Your task to perform on an android device: Open Amazon Image 0: 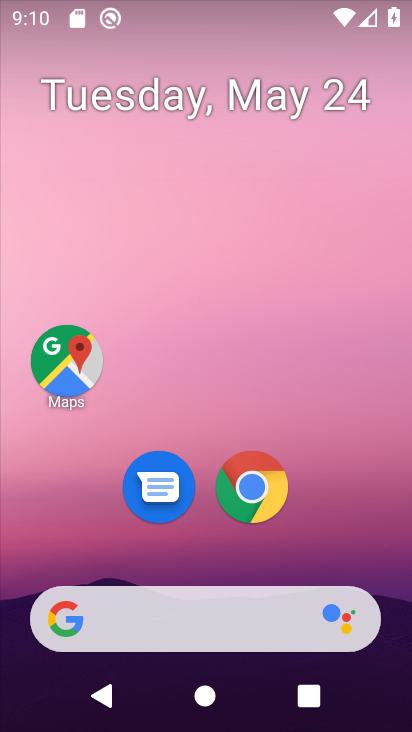
Step 0: press home button
Your task to perform on an android device: Open Amazon Image 1: 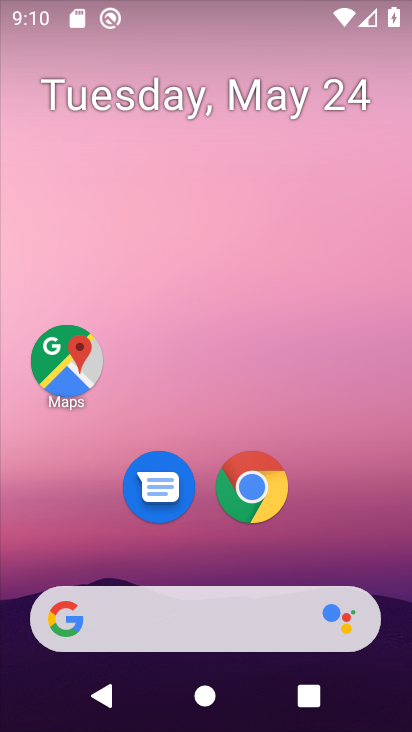
Step 1: click (256, 494)
Your task to perform on an android device: Open Amazon Image 2: 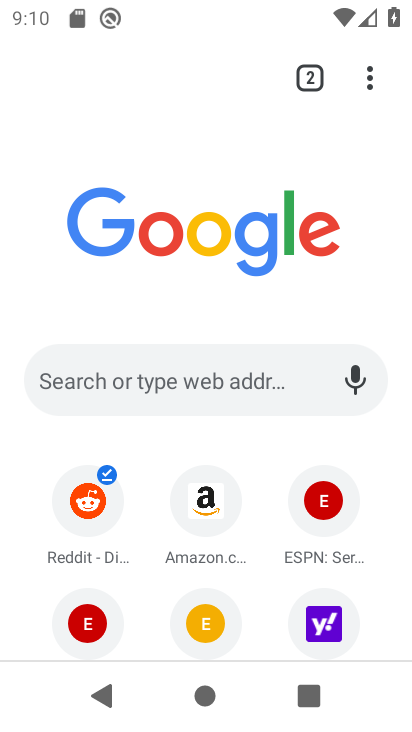
Step 2: click (203, 513)
Your task to perform on an android device: Open Amazon Image 3: 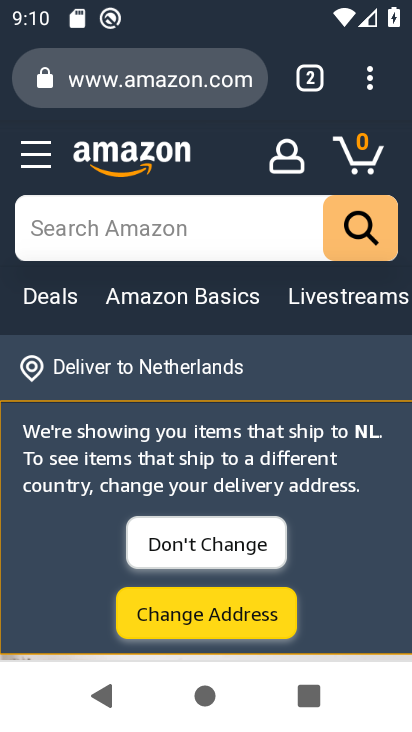
Step 3: task complete